Your task to perform on an android device: open app "Google Keep" (install if not already installed) Image 0: 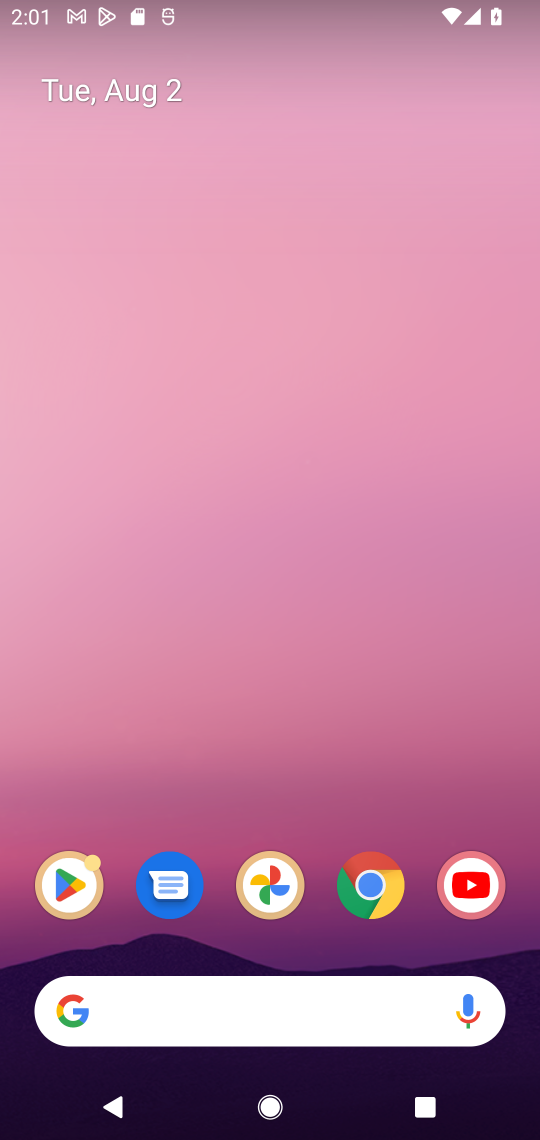
Step 0: click (74, 895)
Your task to perform on an android device: open app "Google Keep" (install if not already installed) Image 1: 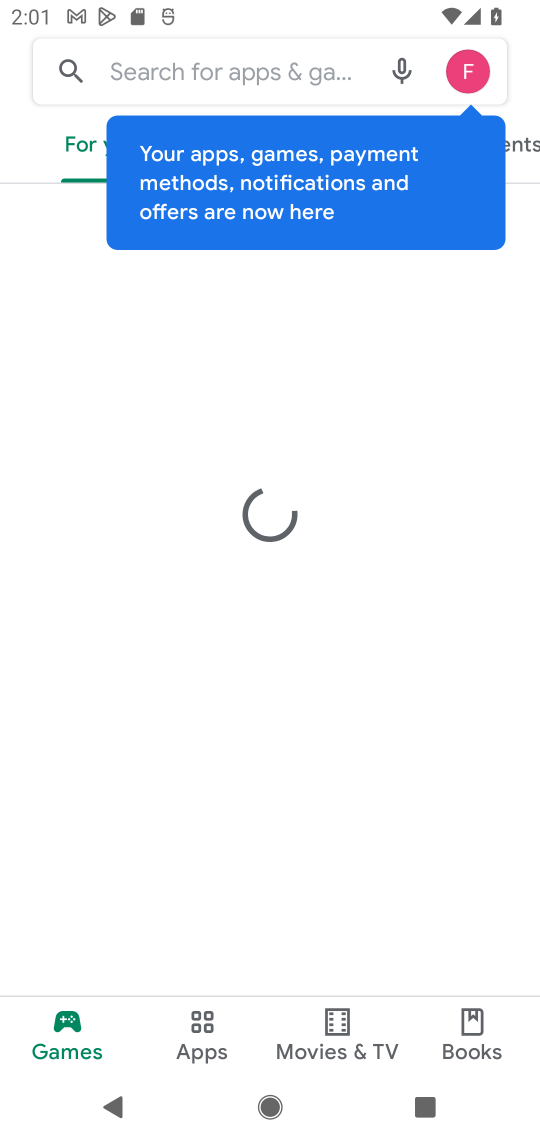
Step 1: click (197, 84)
Your task to perform on an android device: open app "Google Keep" (install if not already installed) Image 2: 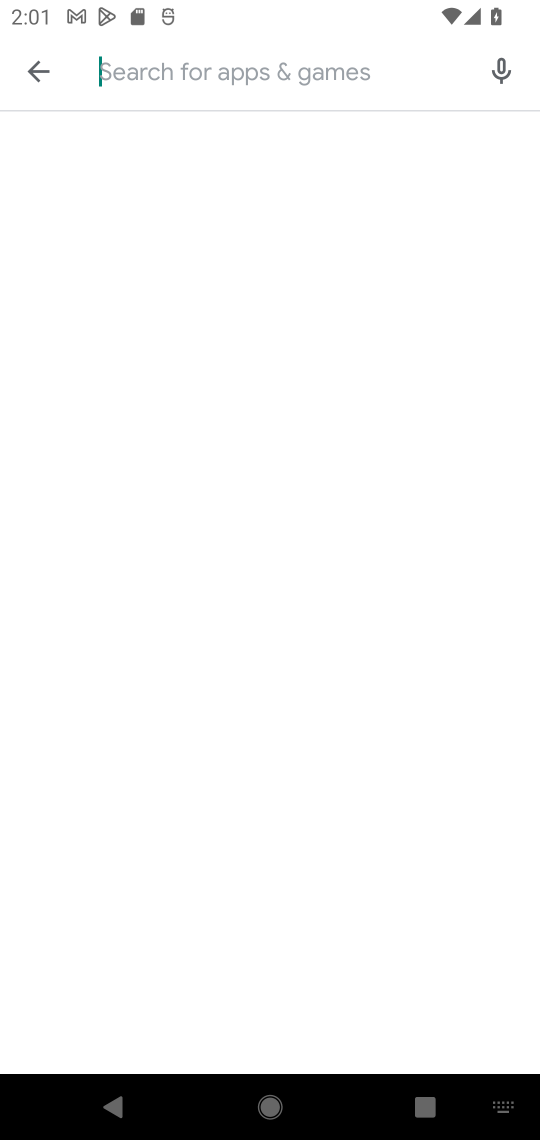
Step 2: type "google keep"
Your task to perform on an android device: open app "Google Keep" (install if not already installed) Image 3: 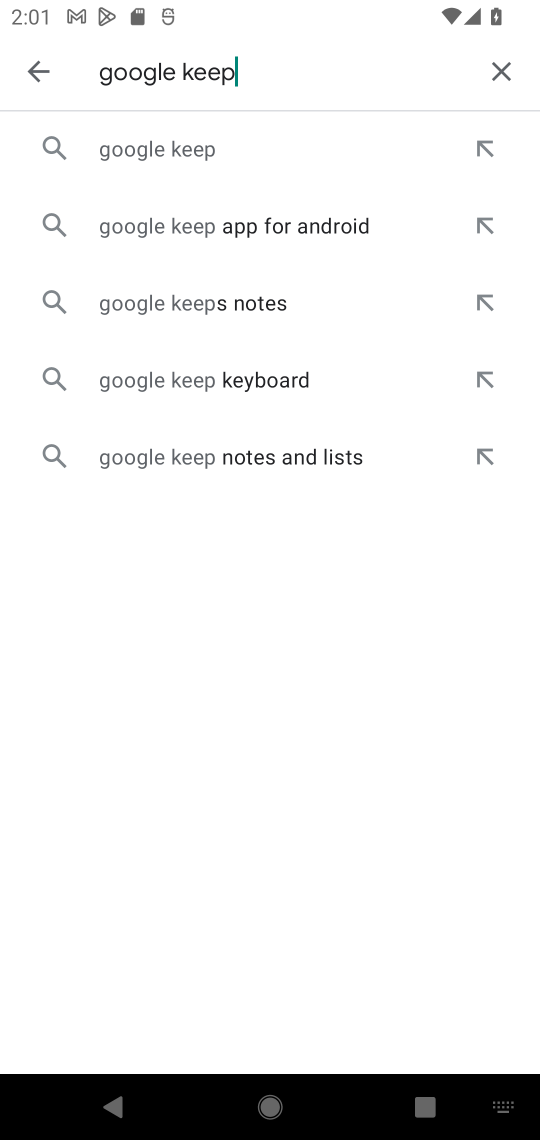
Step 3: click (283, 155)
Your task to perform on an android device: open app "Google Keep" (install if not already installed) Image 4: 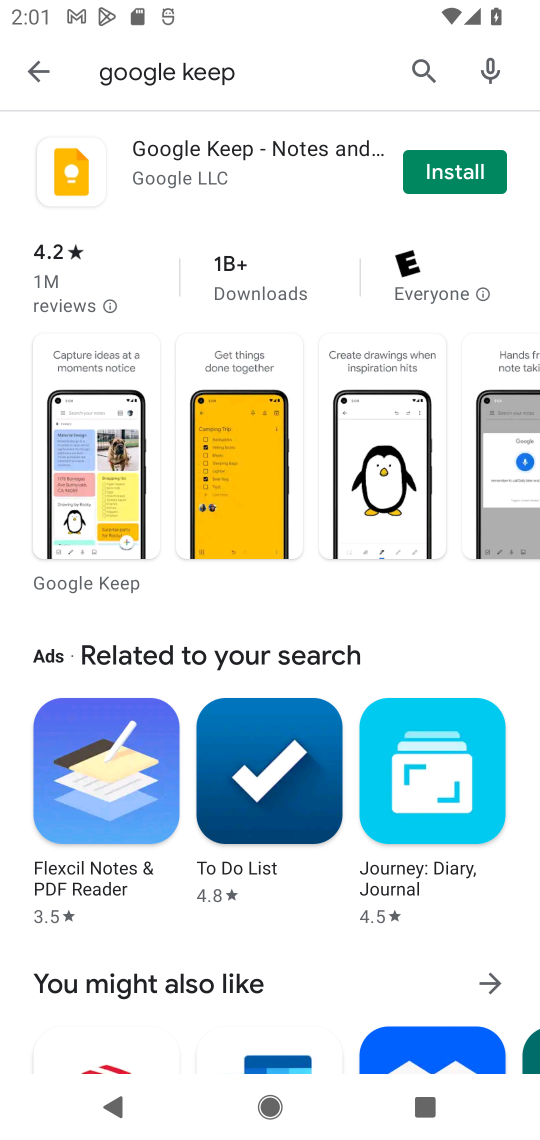
Step 4: click (437, 186)
Your task to perform on an android device: open app "Google Keep" (install if not already installed) Image 5: 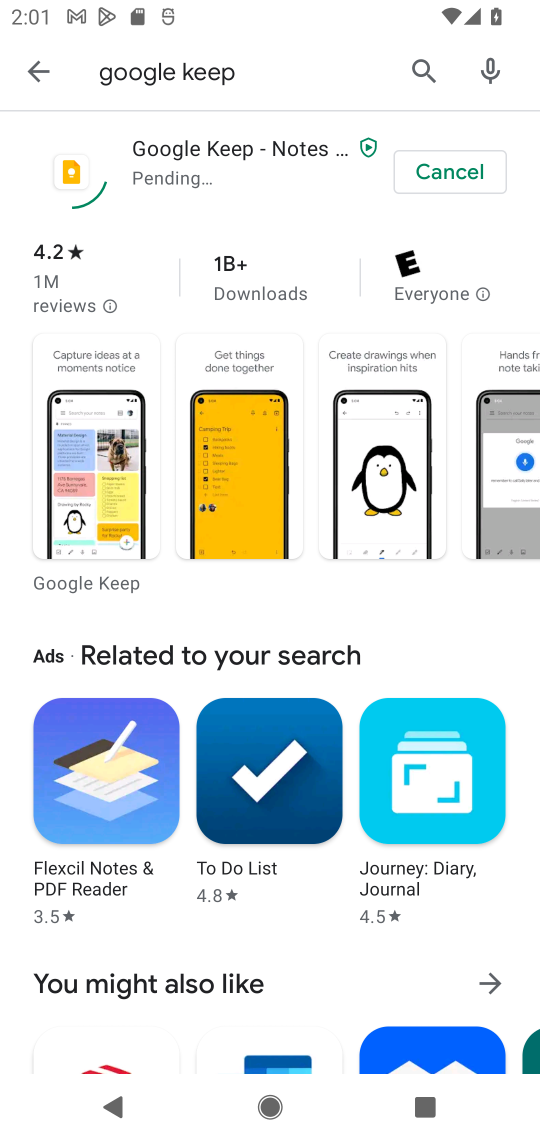
Step 5: task complete